Your task to perform on an android device: turn notification dots on Image 0: 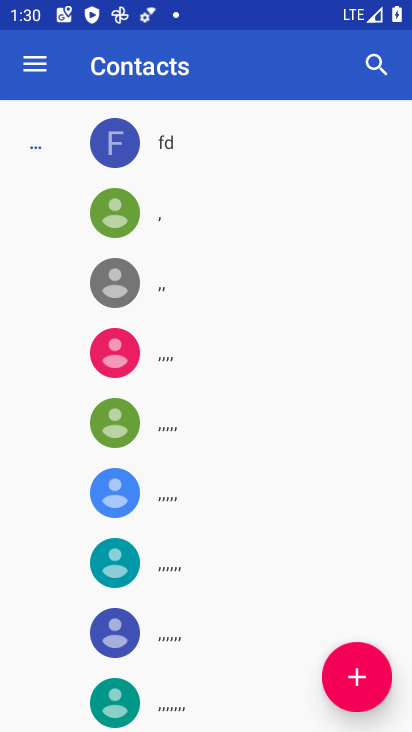
Step 0: press home button
Your task to perform on an android device: turn notification dots on Image 1: 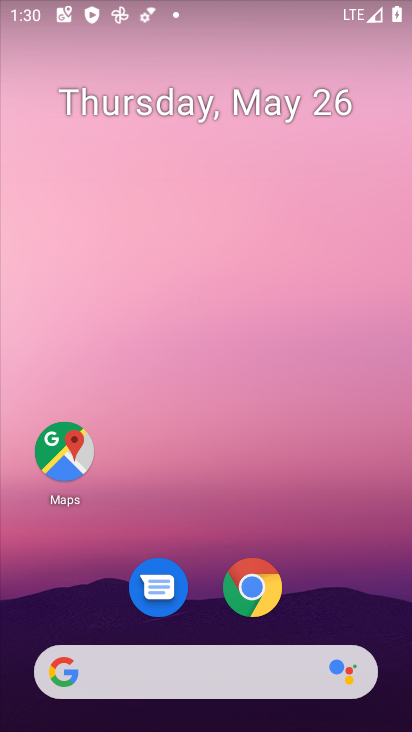
Step 1: drag from (368, 608) to (370, 139)
Your task to perform on an android device: turn notification dots on Image 2: 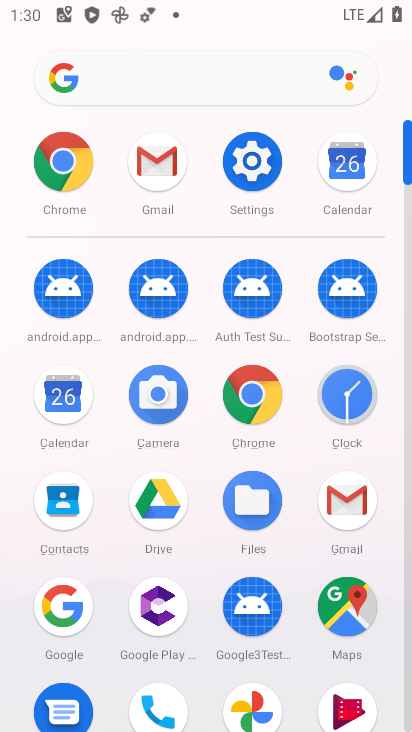
Step 2: click (258, 173)
Your task to perform on an android device: turn notification dots on Image 3: 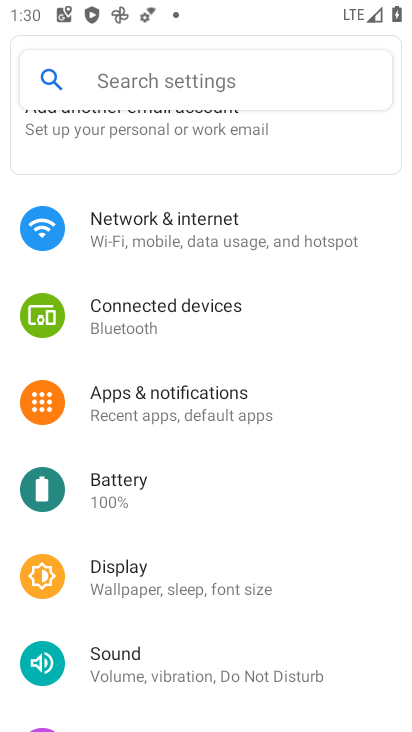
Step 3: drag from (332, 572) to (333, 440)
Your task to perform on an android device: turn notification dots on Image 4: 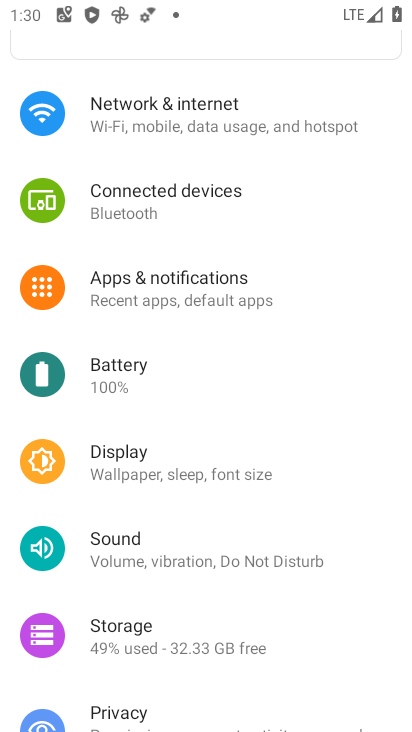
Step 4: drag from (362, 605) to (351, 485)
Your task to perform on an android device: turn notification dots on Image 5: 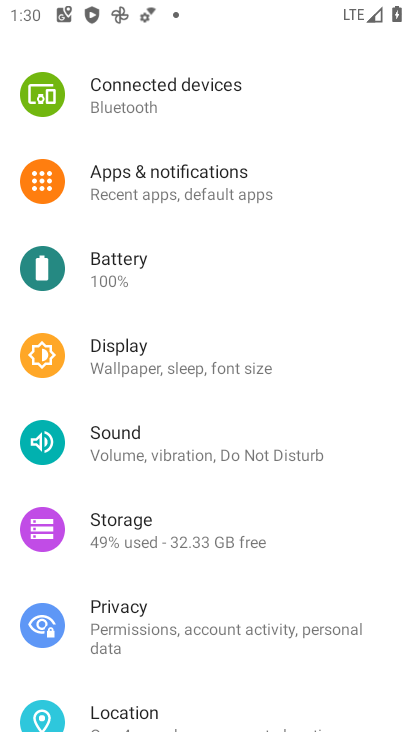
Step 5: drag from (352, 550) to (350, 449)
Your task to perform on an android device: turn notification dots on Image 6: 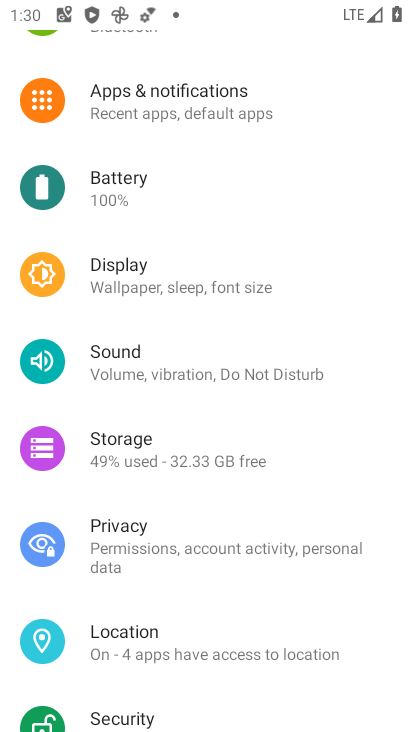
Step 6: drag from (352, 578) to (359, 465)
Your task to perform on an android device: turn notification dots on Image 7: 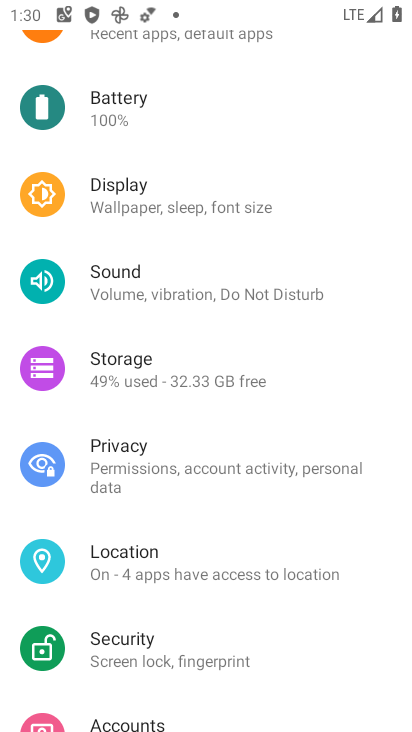
Step 7: drag from (364, 595) to (363, 481)
Your task to perform on an android device: turn notification dots on Image 8: 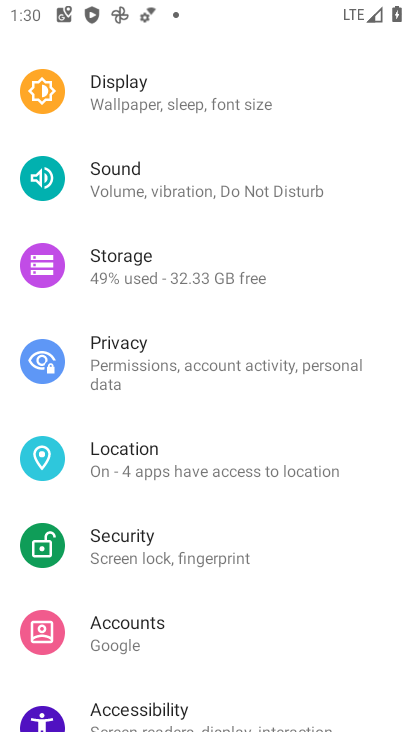
Step 8: drag from (357, 607) to (360, 511)
Your task to perform on an android device: turn notification dots on Image 9: 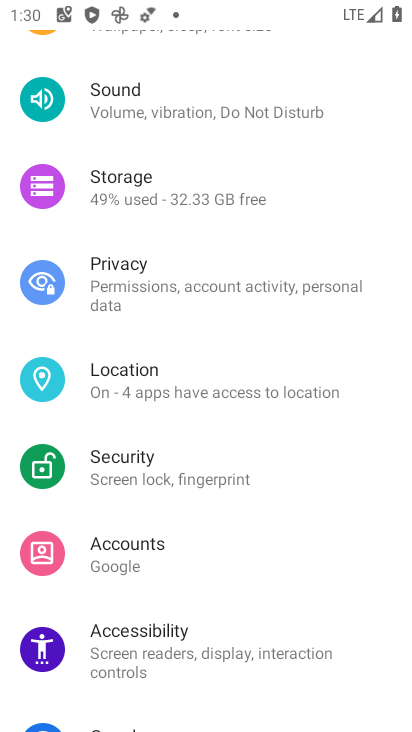
Step 9: drag from (369, 634) to (357, 507)
Your task to perform on an android device: turn notification dots on Image 10: 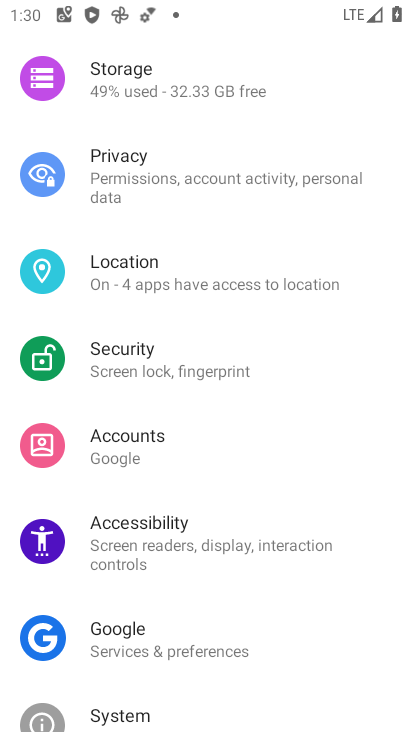
Step 10: drag from (365, 618) to (351, 473)
Your task to perform on an android device: turn notification dots on Image 11: 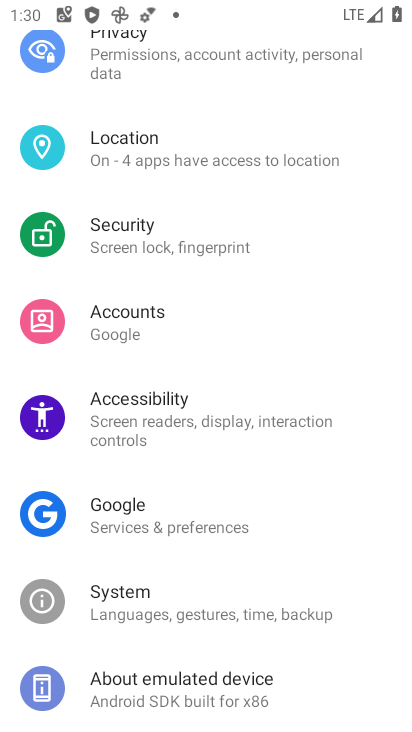
Step 11: drag from (372, 592) to (369, 448)
Your task to perform on an android device: turn notification dots on Image 12: 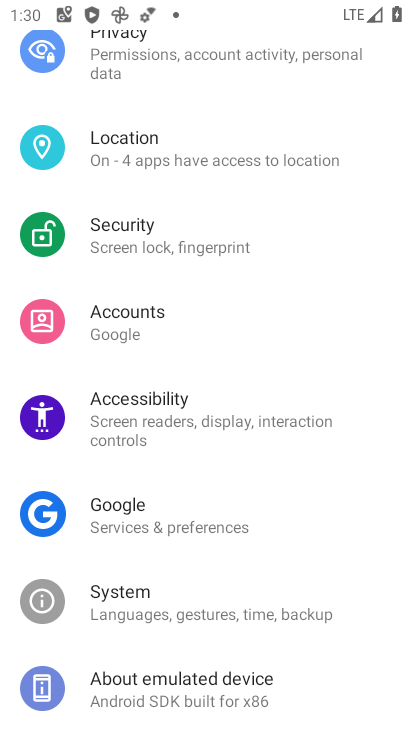
Step 12: drag from (357, 663) to (358, 511)
Your task to perform on an android device: turn notification dots on Image 13: 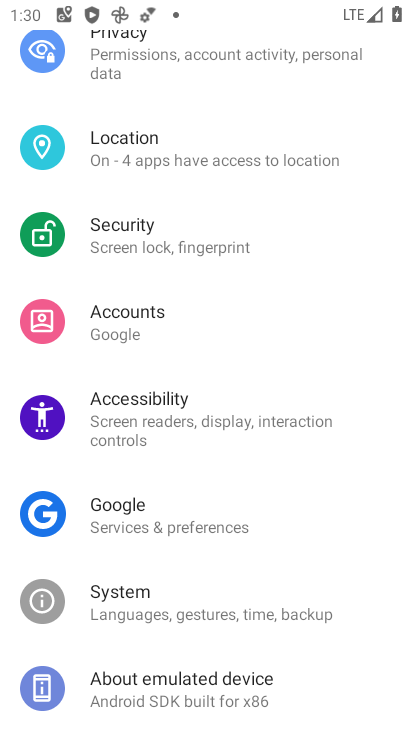
Step 13: drag from (349, 370) to (351, 465)
Your task to perform on an android device: turn notification dots on Image 14: 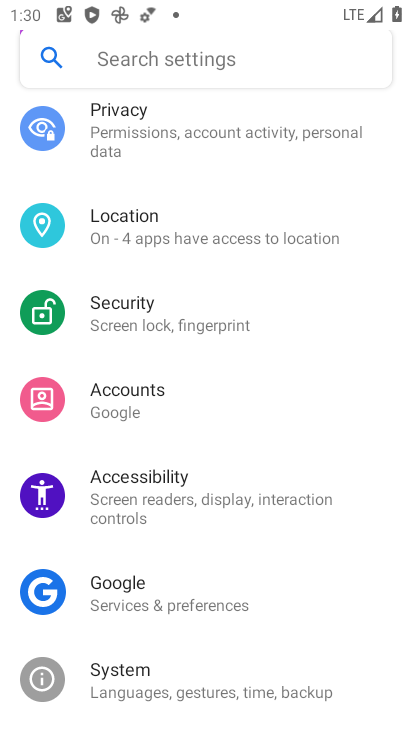
Step 14: drag from (353, 336) to (353, 437)
Your task to perform on an android device: turn notification dots on Image 15: 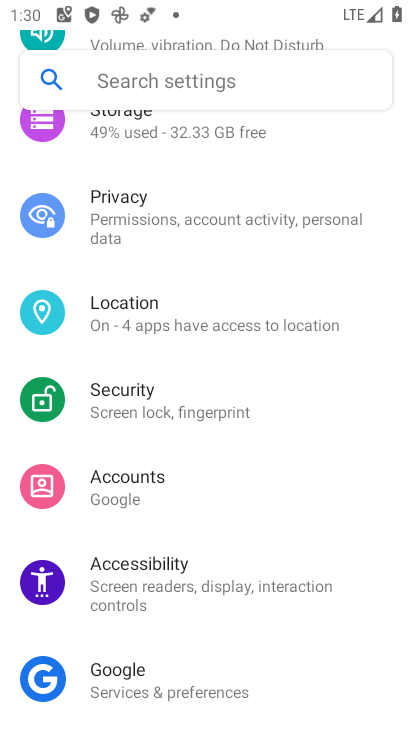
Step 15: drag from (352, 300) to (351, 433)
Your task to perform on an android device: turn notification dots on Image 16: 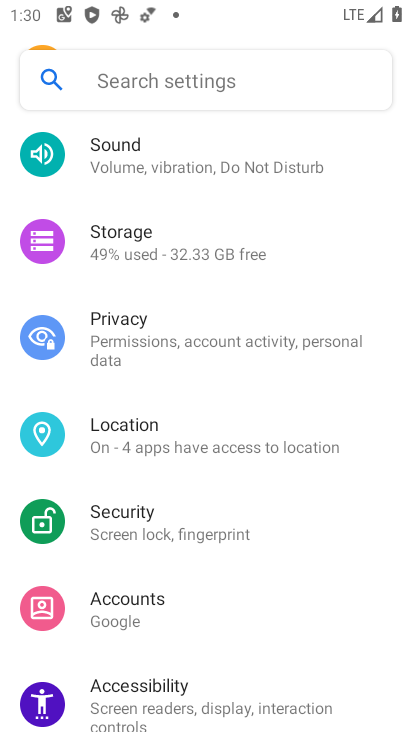
Step 16: drag from (353, 292) to (358, 457)
Your task to perform on an android device: turn notification dots on Image 17: 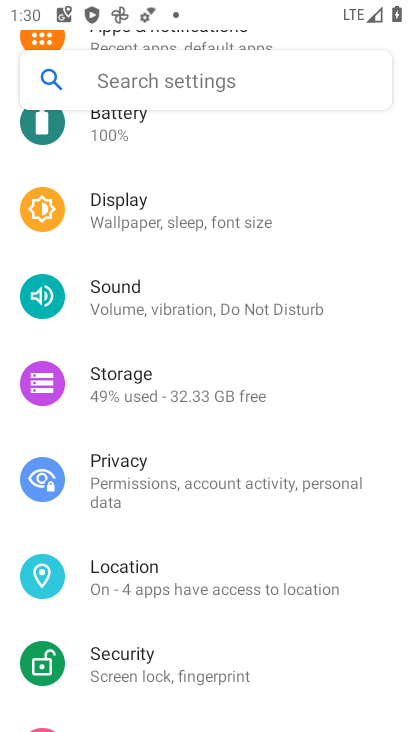
Step 17: drag from (358, 278) to (361, 383)
Your task to perform on an android device: turn notification dots on Image 18: 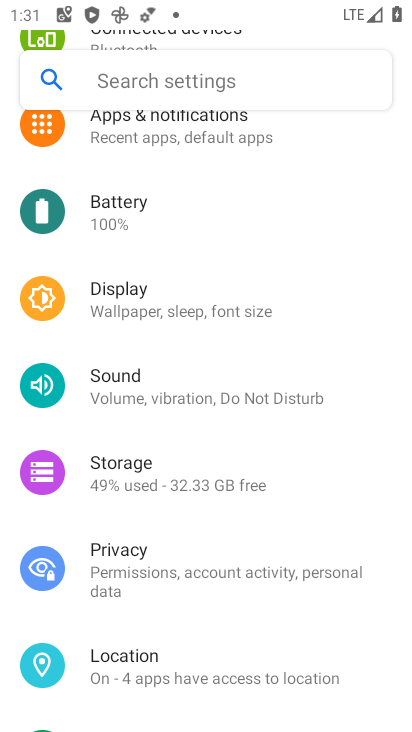
Step 18: drag from (349, 235) to (353, 348)
Your task to perform on an android device: turn notification dots on Image 19: 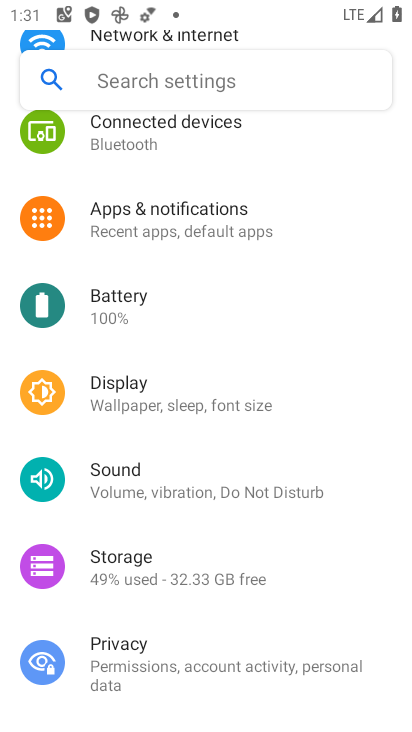
Step 19: drag from (343, 231) to (342, 349)
Your task to perform on an android device: turn notification dots on Image 20: 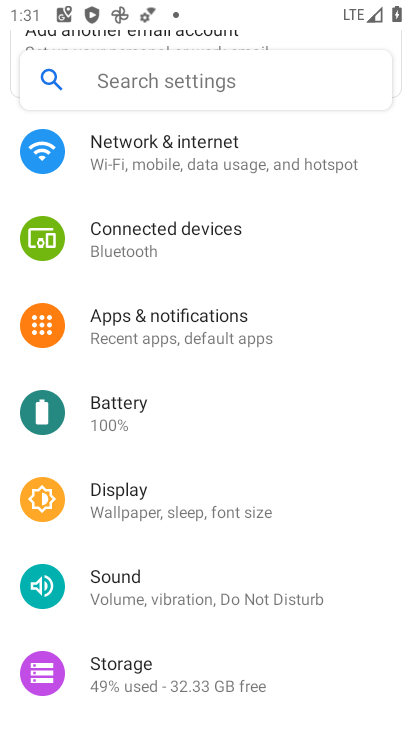
Step 20: drag from (335, 255) to (338, 372)
Your task to perform on an android device: turn notification dots on Image 21: 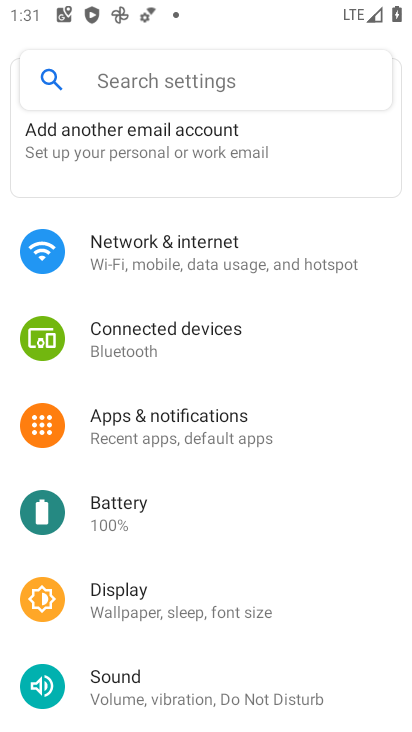
Step 21: click (221, 425)
Your task to perform on an android device: turn notification dots on Image 22: 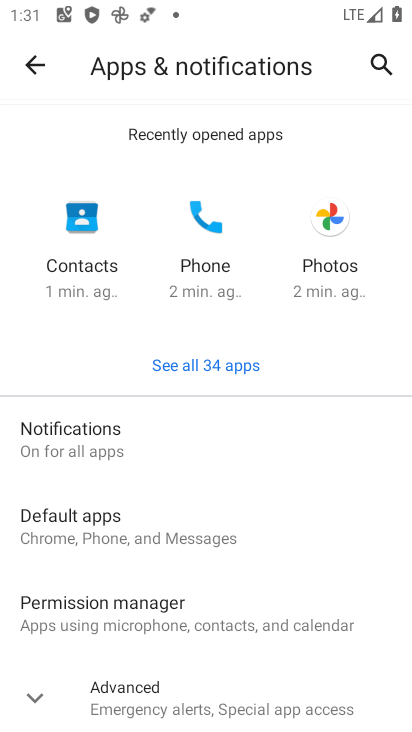
Step 22: click (86, 441)
Your task to perform on an android device: turn notification dots on Image 23: 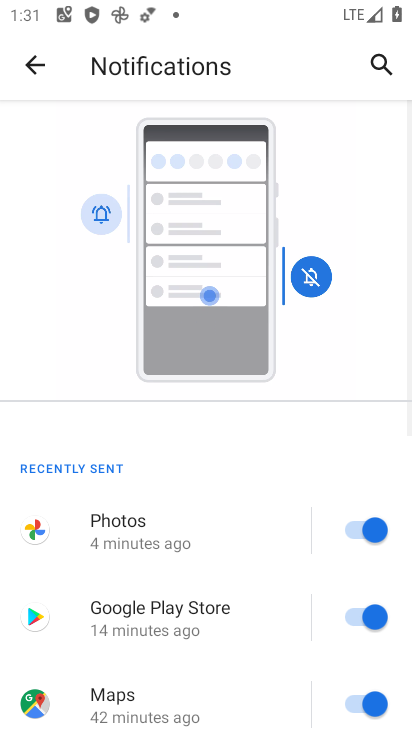
Step 23: drag from (267, 538) to (267, 402)
Your task to perform on an android device: turn notification dots on Image 24: 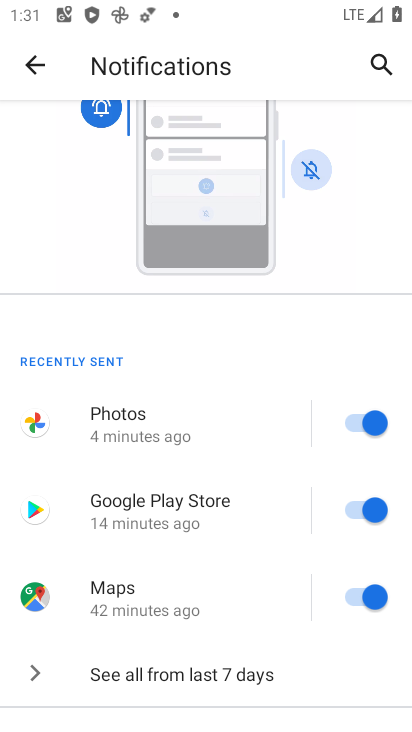
Step 24: drag from (272, 554) to (269, 448)
Your task to perform on an android device: turn notification dots on Image 25: 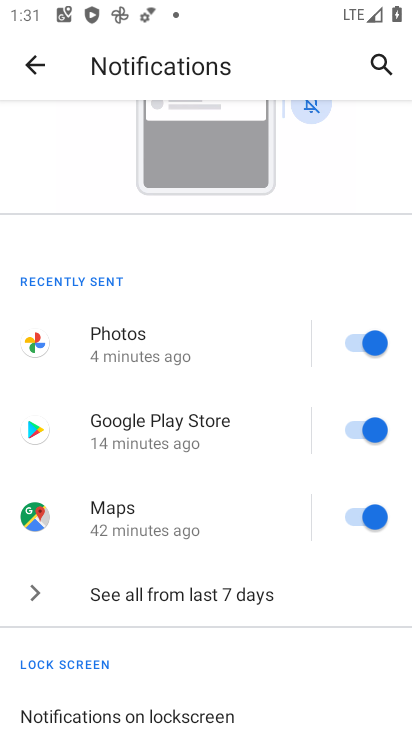
Step 25: drag from (276, 564) to (270, 460)
Your task to perform on an android device: turn notification dots on Image 26: 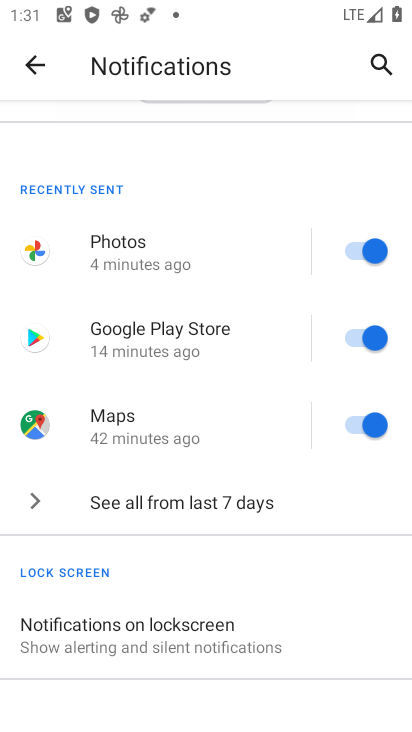
Step 26: drag from (279, 539) to (272, 428)
Your task to perform on an android device: turn notification dots on Image 27: 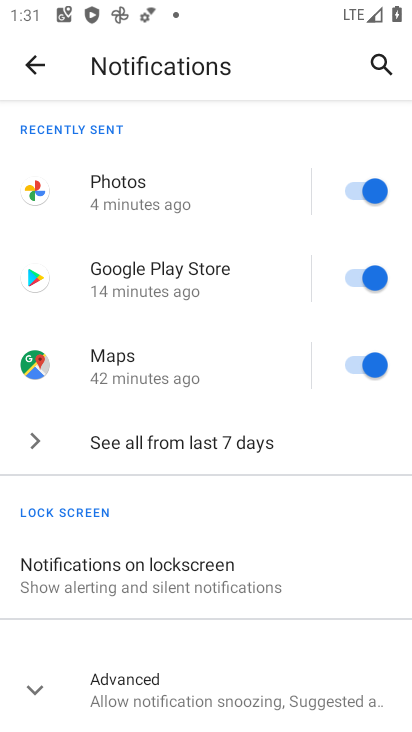
Step 27: click (188, 682)
Your task to perform on an android device: turn notification dots on Image 28: 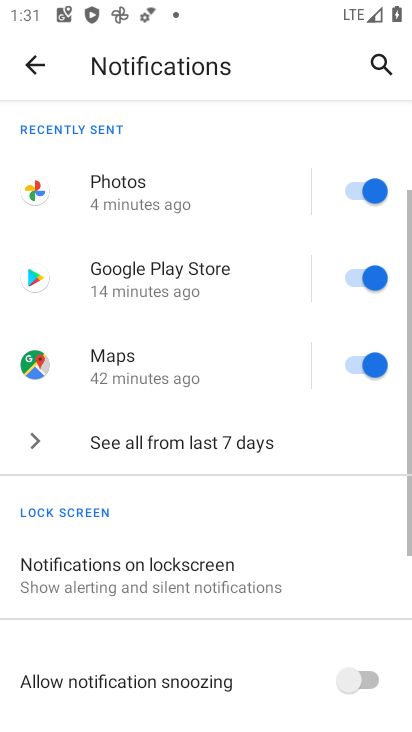
Step 28: task complete